Your task to perform on an android device: change notifications settings Image 0: 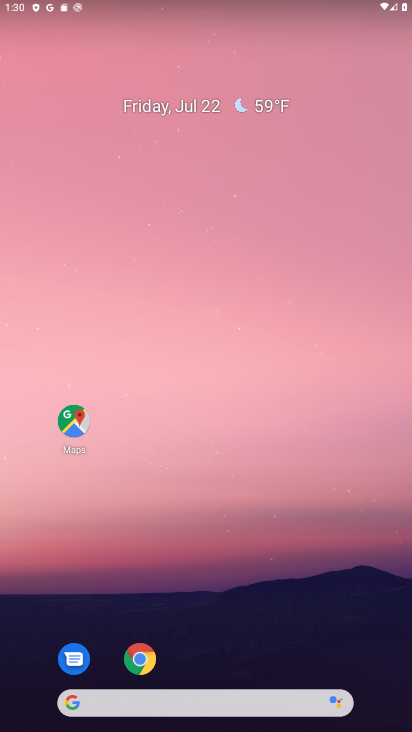
Step 0: drag from (251, 616) to (30, 40)
Your task to perform on an android device: change notifications settings Image 1: 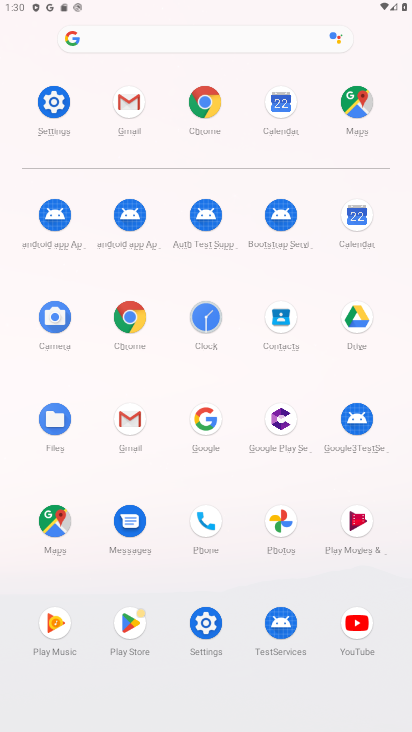
Step 1: click (47, 100)
Your task to perform on an android device: change notifications settings Image 2: 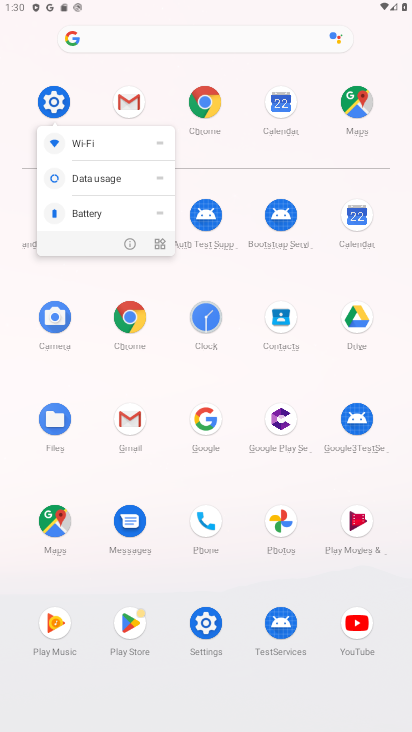
Step 2: click (66, 115)
Your task to perform on an android device: change notifications settings Image 3: 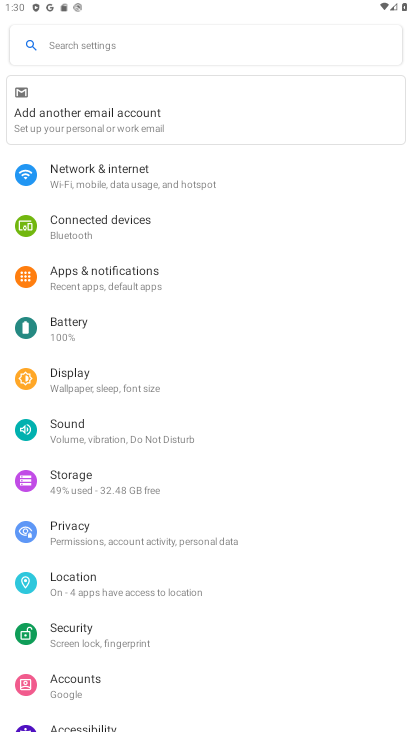
Step 3: click (146, 277)
Your task to perform on an android device: change notifications settings Image 4: 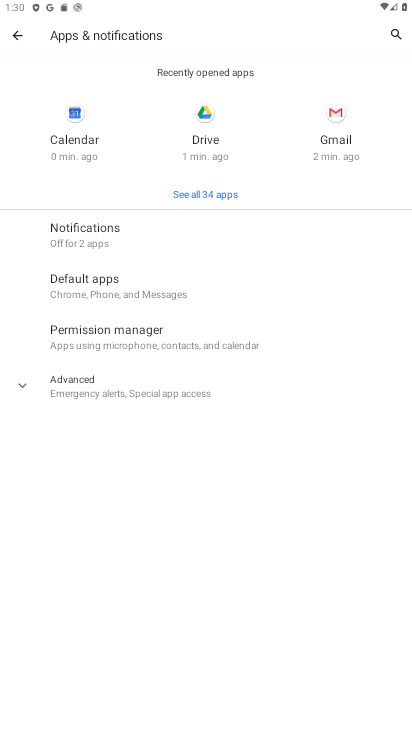
Step 4: click (96, 226)
Your task to perform on an android device: change notifications settings Image 5: 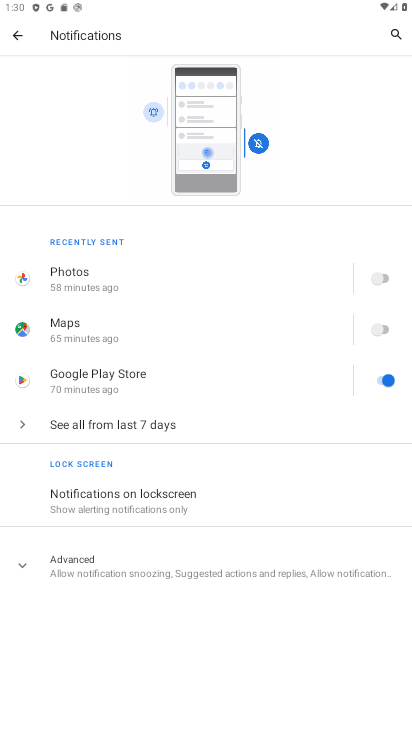
Step 5: task complete